Your task to perform on an android device: install app "DoorDash - Dasher" Image 0: 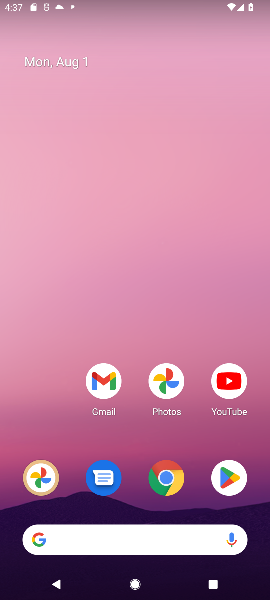
Step 0: press home button
Your task to perform on an android device: install app "DoorDash - Dasher" Image 1: 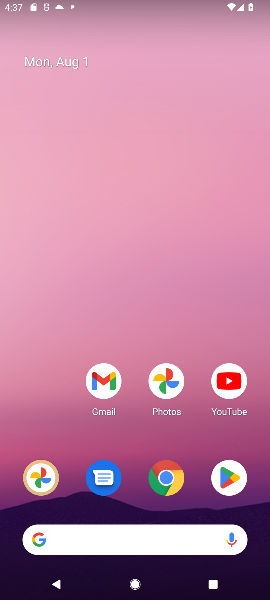
Step 1: click (229, 488)
Your task to perform on an android device: install app "DoorDash - Dasher" Image 2: 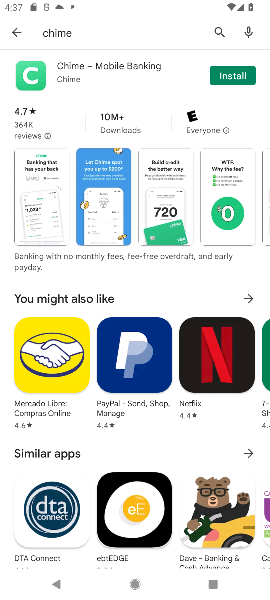
Step 2: click (210, 35)
Your task to perform on an android device: install app "DoorDash - Dasher" Image 3: 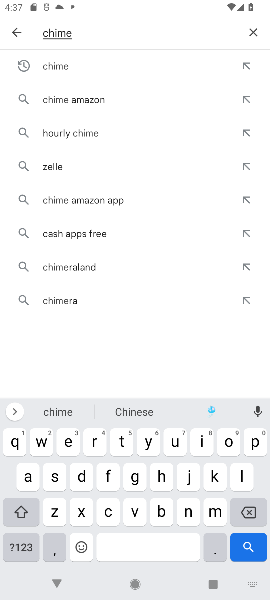
Step 3: click (246, 29)
Your task to perform on an android device: install app "DoorDash - Dasher" Image 4: 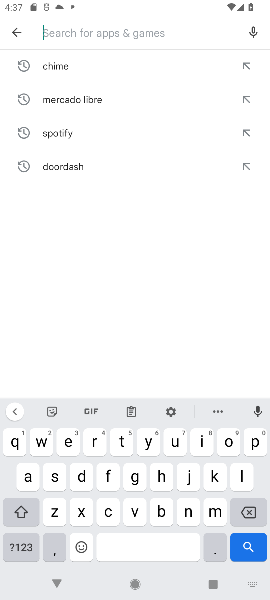
Step 4: click (69, 171)
Your task to perform on an android device: install app "DoorDash - Dasher" Image 5: 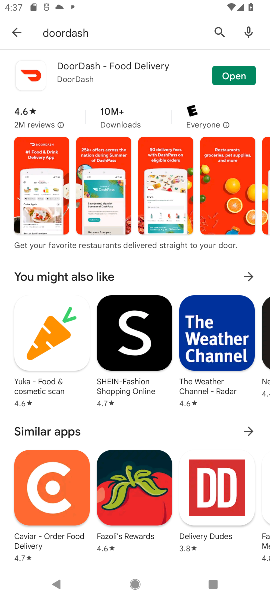
Step 5: task complete